Your task to perform on an android device: Go to network settings Image 0: 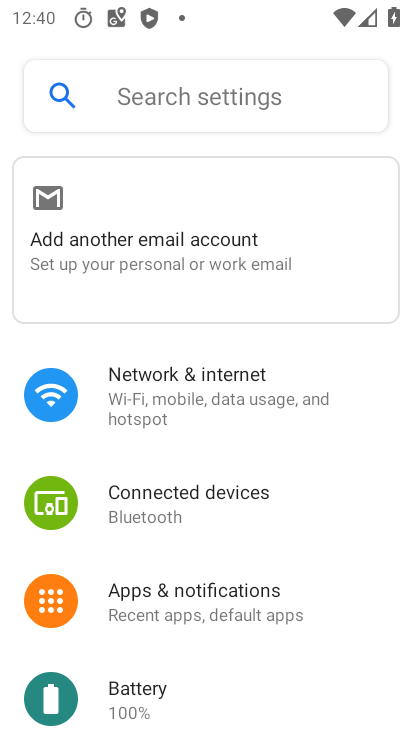
Step 0: click (155, 379)
Your task to perform on an android device: Go to network settings Image 1: 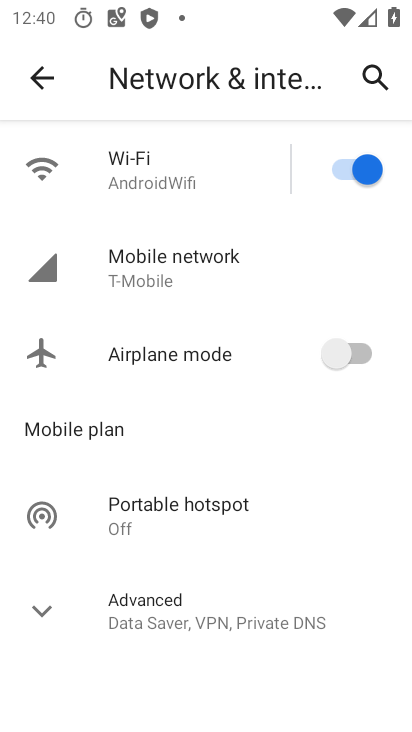
Step 1: task complete